Your task to perform on an android device: Play the last video I watched on Youtube Image 0: 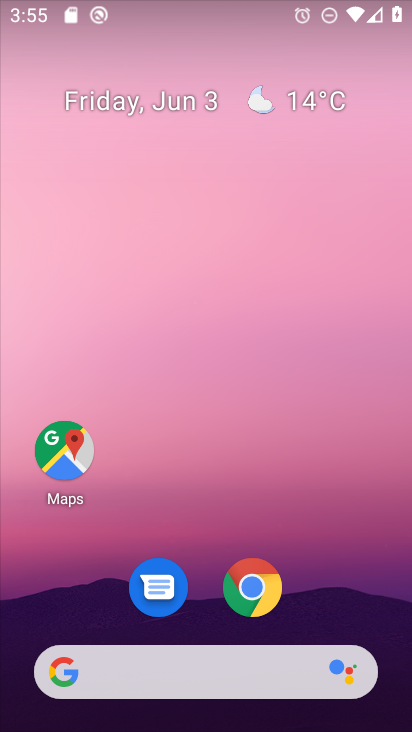
Step 0: drag from (228, 724) to (265, 66)
Your task to perform on an android device: Play the last video I watched on Youtube Image 1: 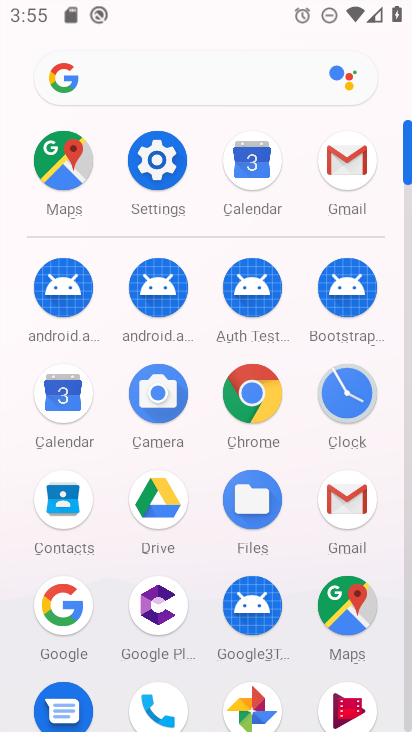
Step 1: drag from (302, 681) to (301, 340)
Your task to perform on an android device: Play the last video I watched on Youtube Image 2: 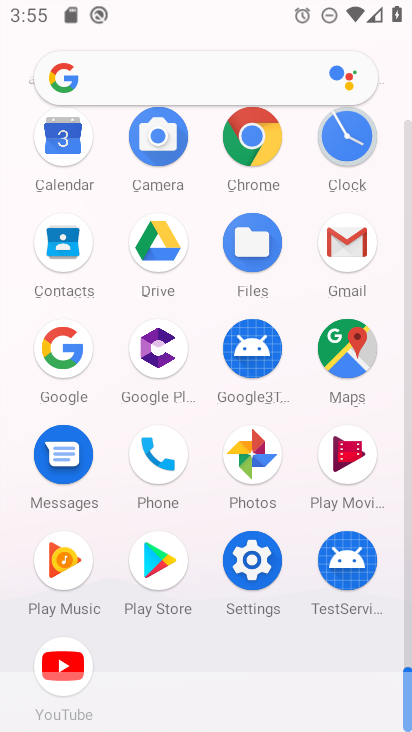
Step 2: click (57, 666)
Your task to perform on an android device: Play the last video I watched on Youtube Image 3: 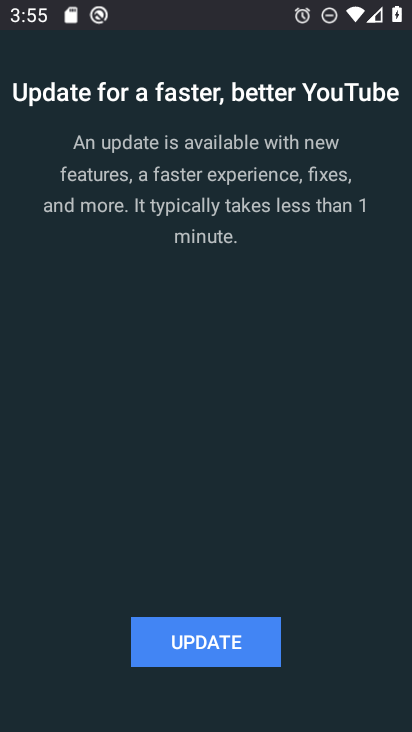
Step 3: click (215, 645)
Your task to perform on an android device: Play the last video I watched on Youtube Image 4: 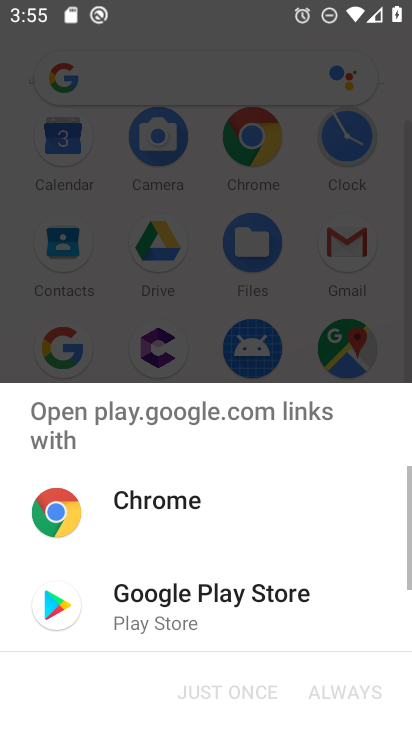
Step 4: click (146, 592)
Your task to perform on an android device: Play the last video I watched on Youtube Image 5: 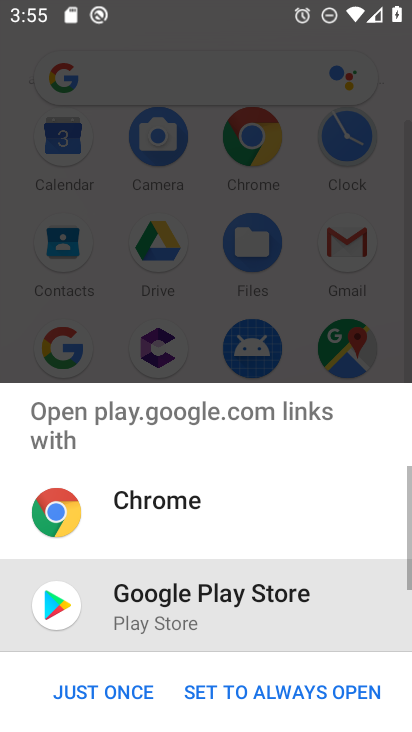
Step 5: click (114, 692)
Your task to perform on an android device: Play the last video I watched on Youtube Image 6: 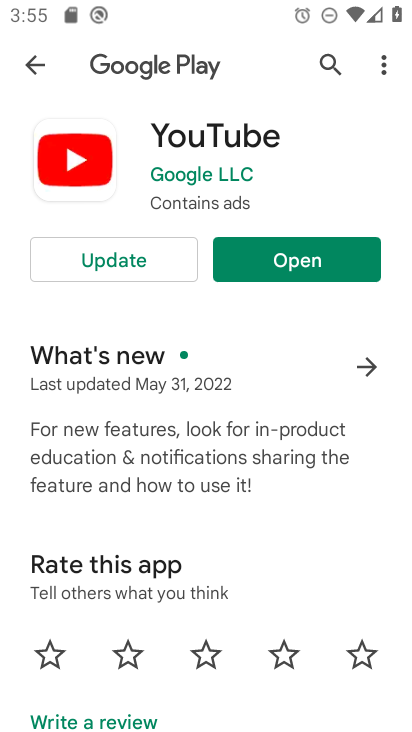
Step 6: click (124, 260)
Your task to perform on an android device: Play the last video I watched on Youtube Image 7: 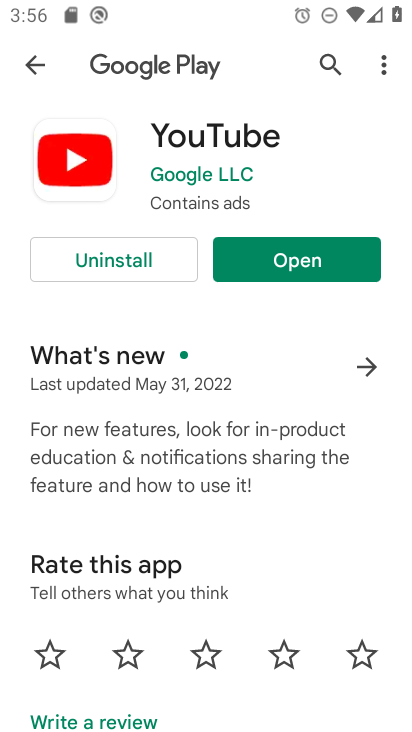
Step 7: click (304, 267)
Your task to perform on an android device: Play the last video I watched on Youtube Image 8: 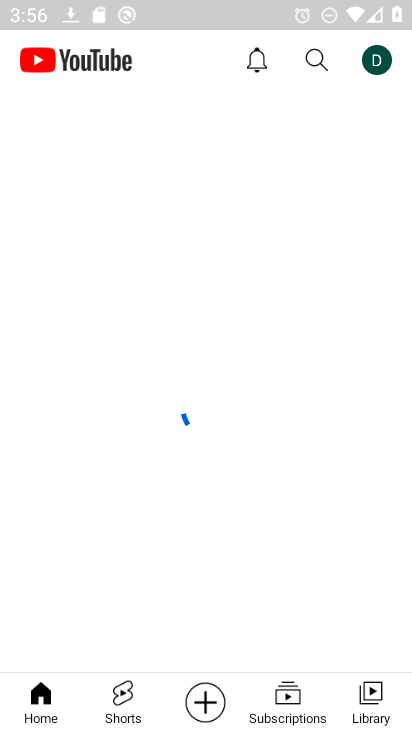
Step 8: click (357, 700)
Your task to perform on an android device: Play the last video I watched on Youtube Image 9: 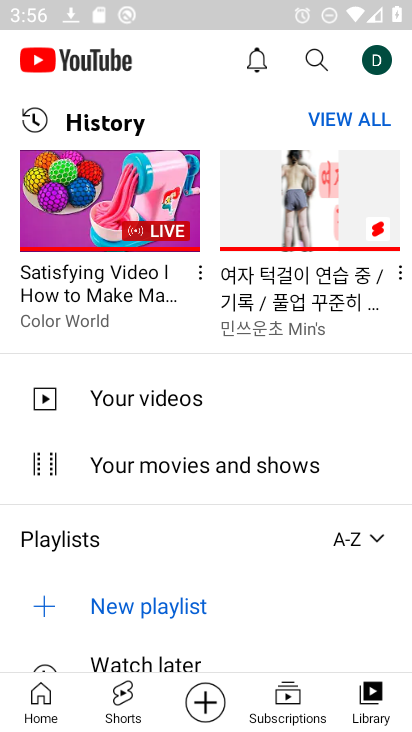
Step 9: click (120, 182)
Your task to perform on an android device: Play the last video I watched on Youtube Image 10: 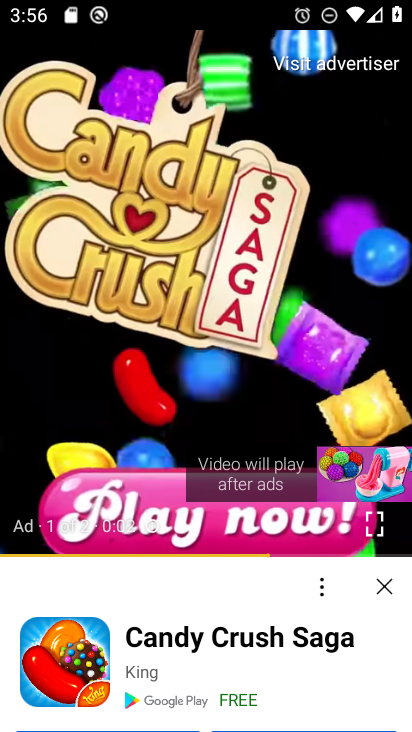
Step 10: click (384, 588)
Your task to perform on an android device: Play the last video I watched on Youtube Image 11: 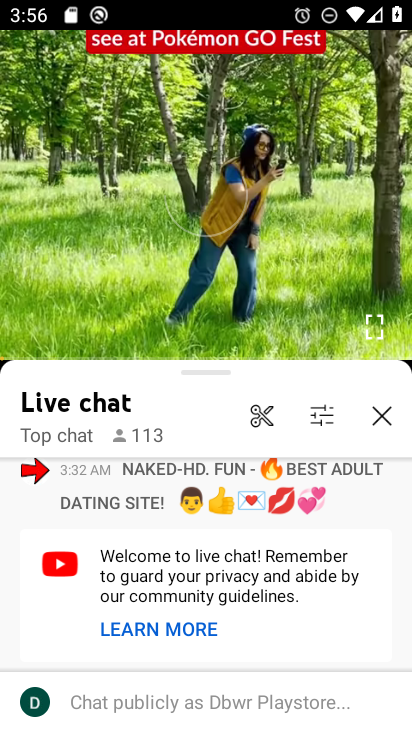
Step 11: click (373, 408)
Your task to perform on an android device: Play the last video I watched on Youtube Image 12: 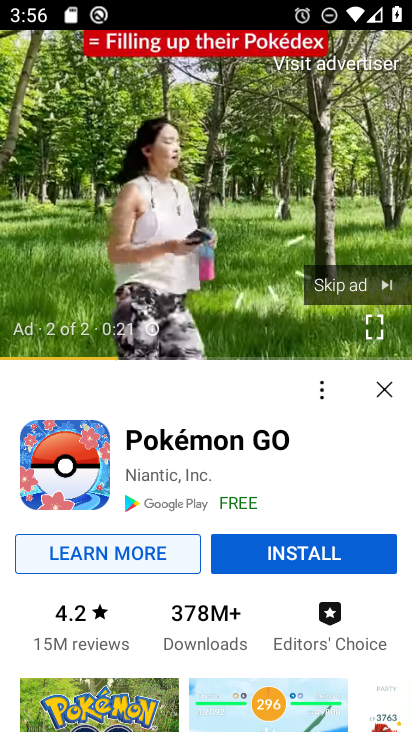
Step 12: click (351, 285)
Your task to perform on an android device: Play the last video I watched on Youtube Image 13: 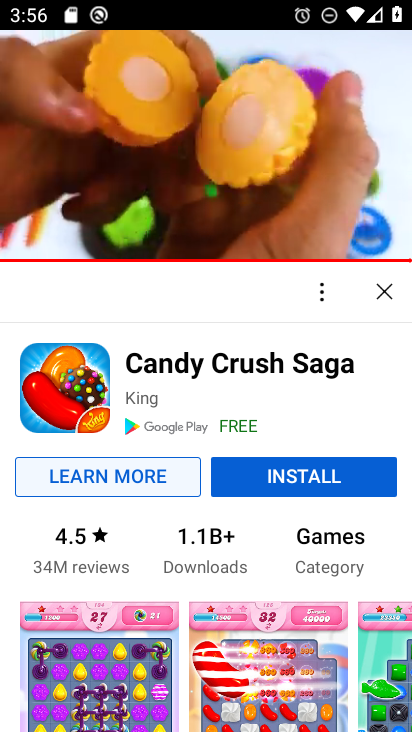
Step 13: task complete